Your task to perform on an android device: turn off priority inbox in the gmail app Image 0: 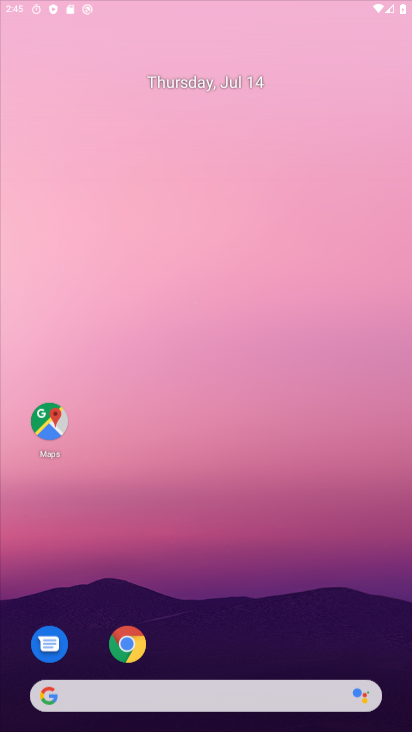
Step 0: click (169, 24)
Your task to perform on an android device: turn off priority inbox in the gmail app Image 1: 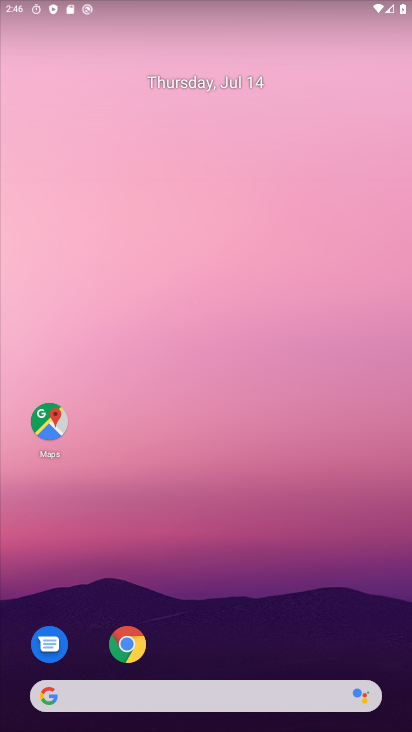
Step 1: drag from (48, 710) to (206, 124)
Your task to perform on an android device: turn off priority inbox in the gmail app Image 2: 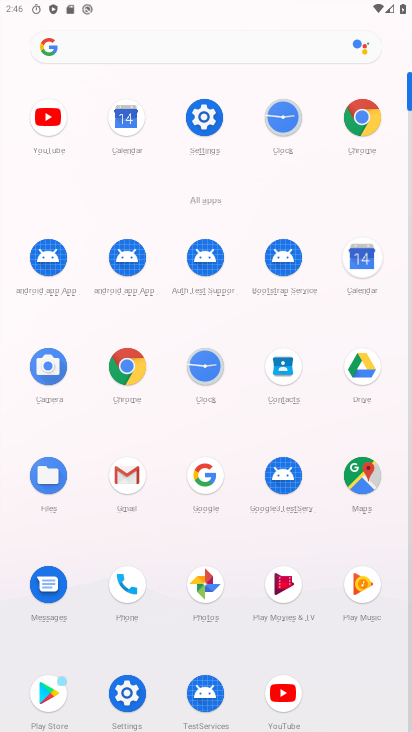
Step 2: click (135, 458)
Your task to perform on an android device: turn off priority inbox in the gmail app Image 3: 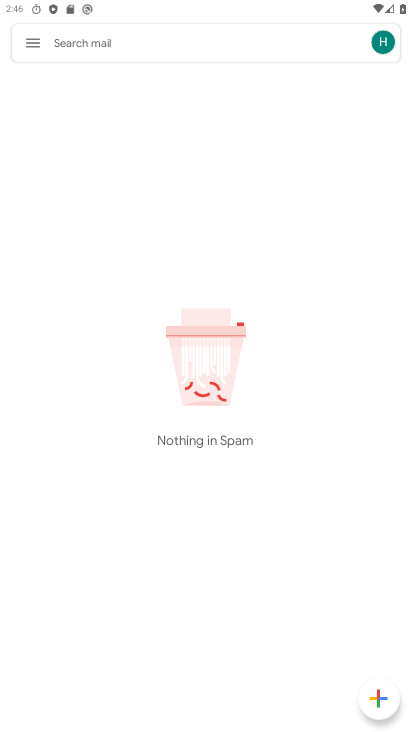
Step 3: click (19, 39)
Your task to perform on an android device: turn off priority inbox in the gmail app Image 4: 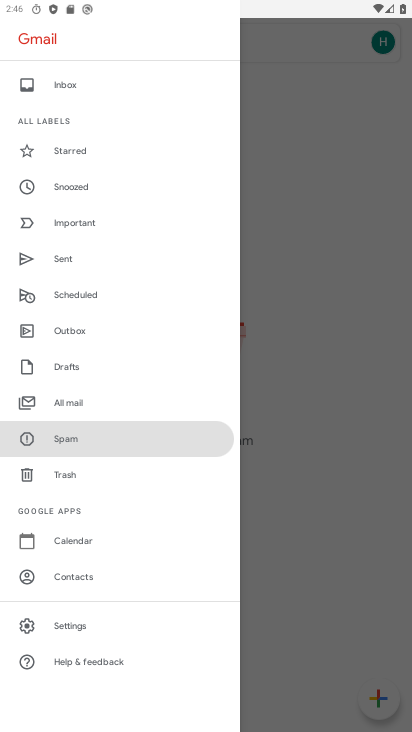
Step 4: click (65, 628)
Your task to perform on an android device: turn off priority inbox in the gmail app Image 5: 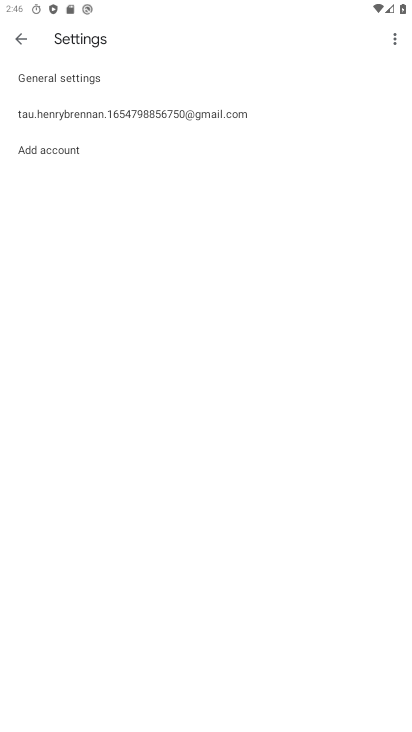
Step 5: click (56, 117)
Your task to perform on an android device: turn off priority inbox in the gmail app Image 6: 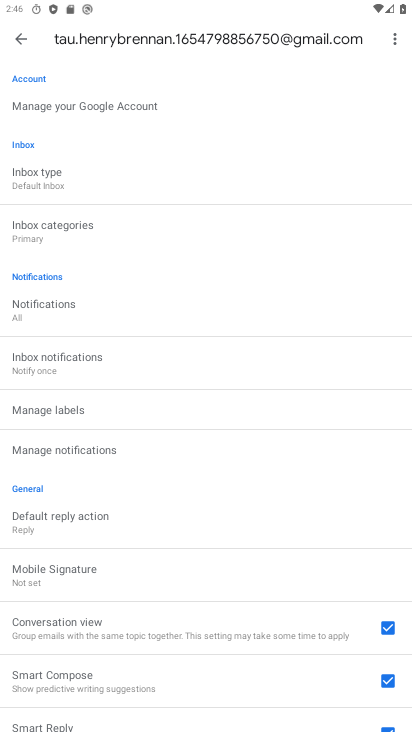
Step 6: click (30, 179)
Your task to perform on an android device: turn off priority inbox in the gmail app Image 7: 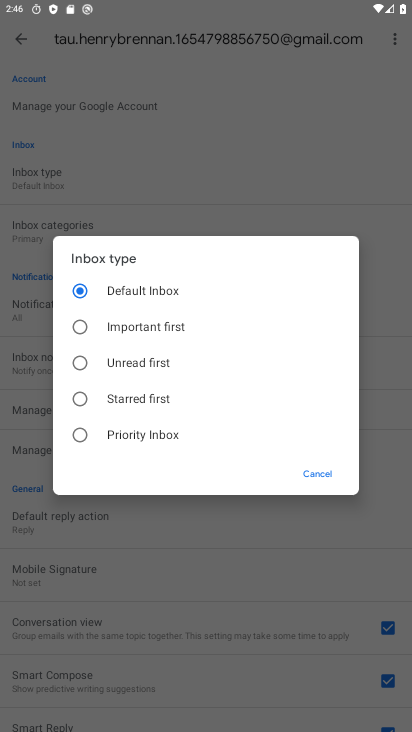
Step 7: click (365, 543)
Your task to perform on an android device: turn off priority inbox in the gmail app Image 8: 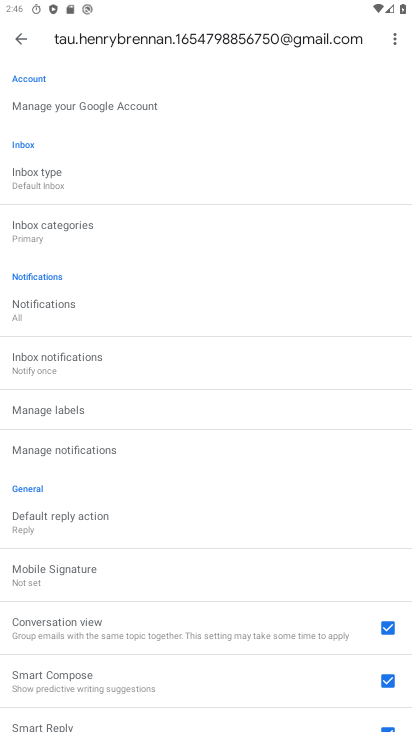
Step 8: task complete